Your task to perform on an android device: Go to battery settings Image 0: 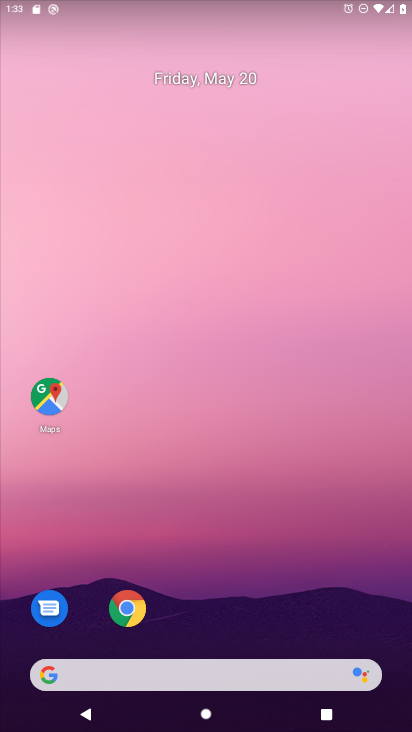
Step 0: drag from (256, 612) to (327, 32)
Your task to perform on an android device: Go to battery settings Image 1: 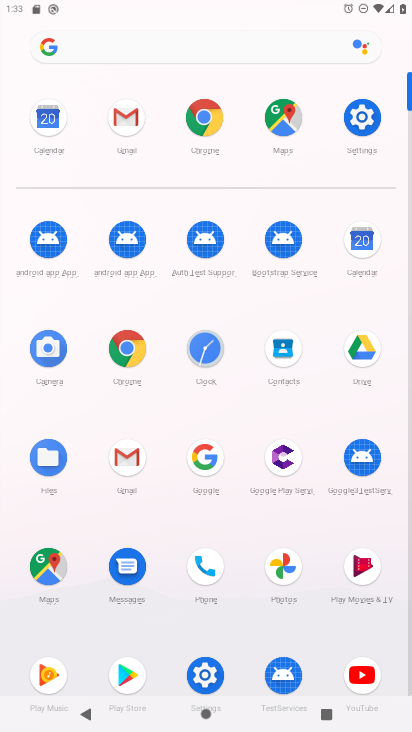
Step 1: click (210, 669)
Your task to perform on an android device: Go to battery settings Image 2: 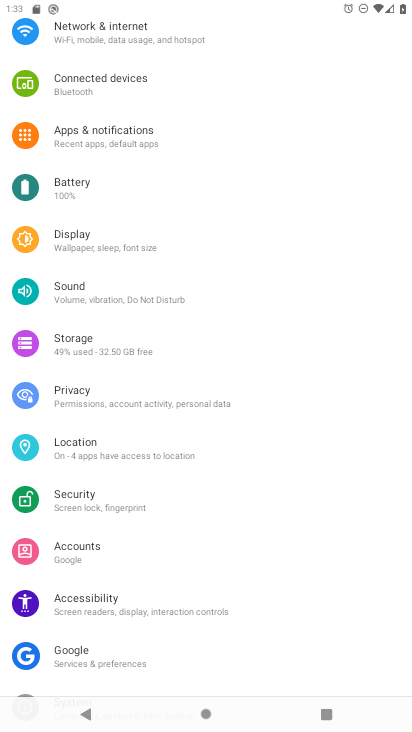
Step 2: click (64, 183)
Your task to perform on an android device: Go to battery settings Image 3: 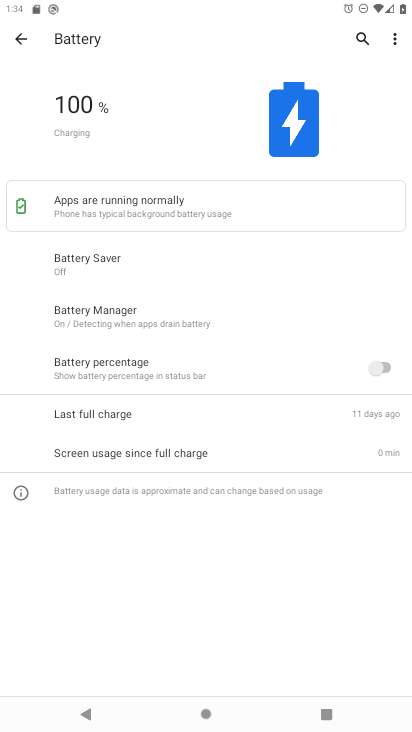
Step 3: task complete